Your task to perform on an android device: check out phone information Image 0: 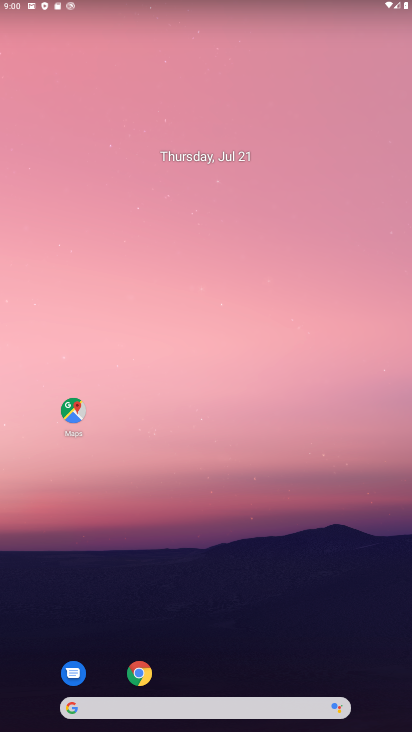
Step 0: drag from (184, 581) to (334, 140)
Your task to perform on an android device: check out phone information Image 1: 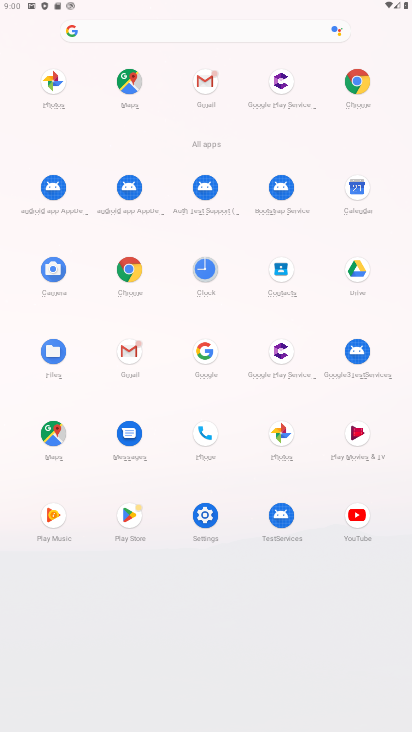
Step 1: click (209, 517)
Your task to perform on an android device: check out phone information Image 2: 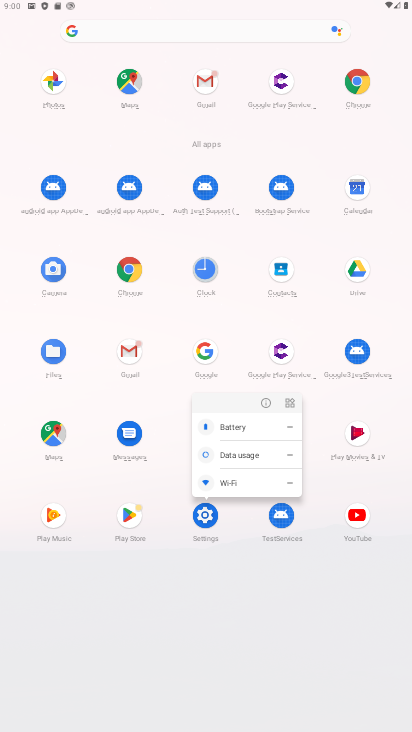
Step 2: click (267, 406)
Your task to perform on an android device: check out phone information Image 3: 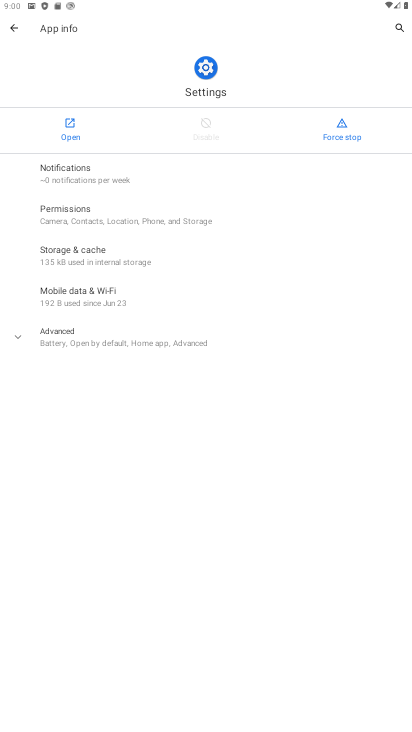
Step 3: click (68, 128)
Your task to perform on an android device: check out phone information Image 4: 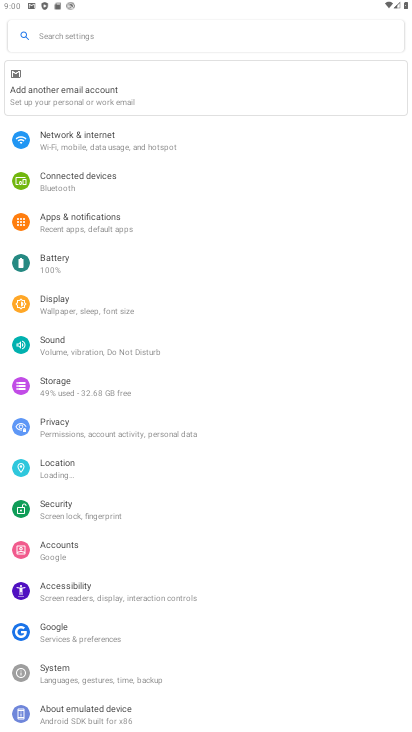
Step 4: click (121, 711)
Your task to perform on an android device: check out phone information Image 5: 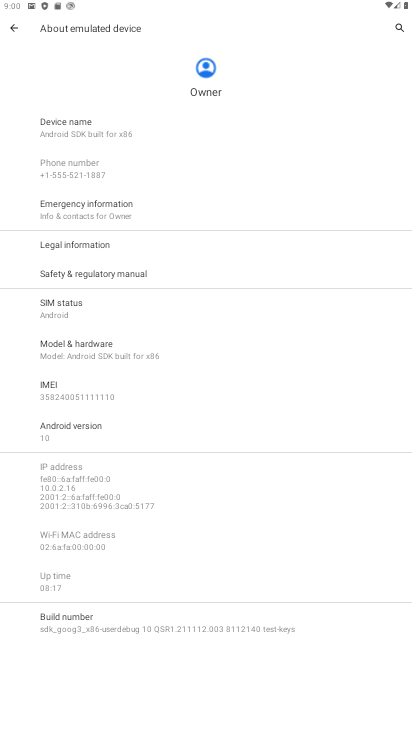
Step 5: task complete